Your task to perform on an android device: turn off javascript in the chrome app Image 0: 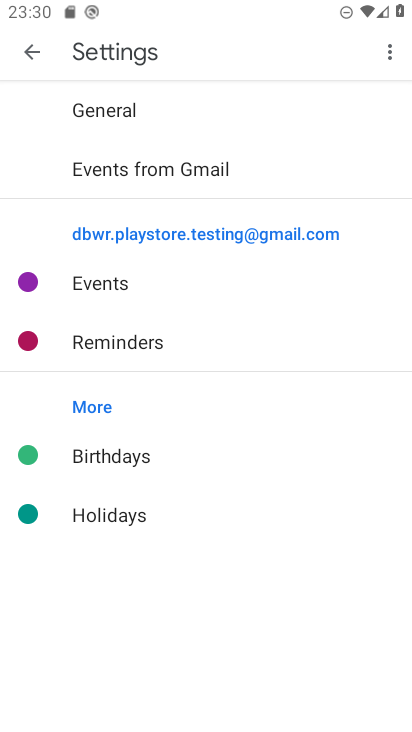
Step 0: press home button
Your task to perform on an android device: turn off javascript in the chrome app Image 1: 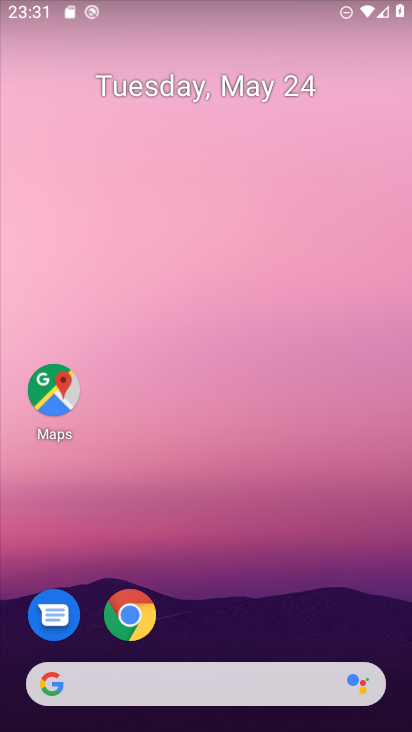
Step 1: drag from (293, 717) to (330, 169)
Your task to perform on an android device: turn off javascript in the chrome app Image 2: 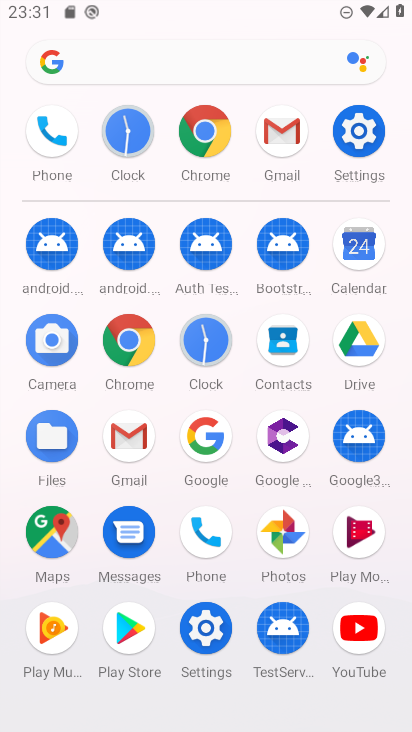
Step 2: click (219, 134)
Your task to perform on an android device: turn off javascript in the chrome app Image 3: 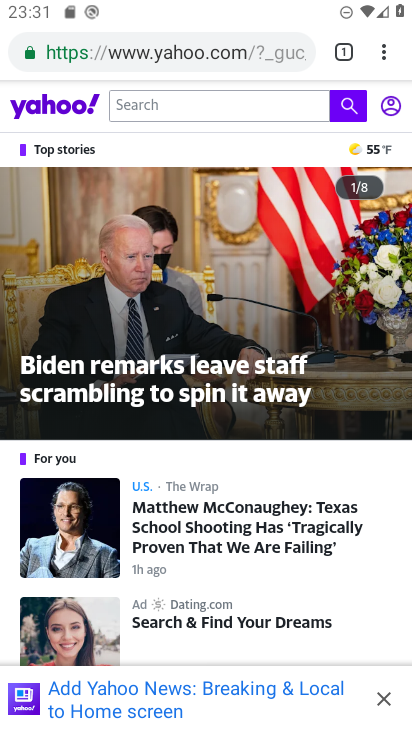
Step 3: click (383, 55)
Your task to perform on an android device: turn off javascript in the chrome app Image 4: 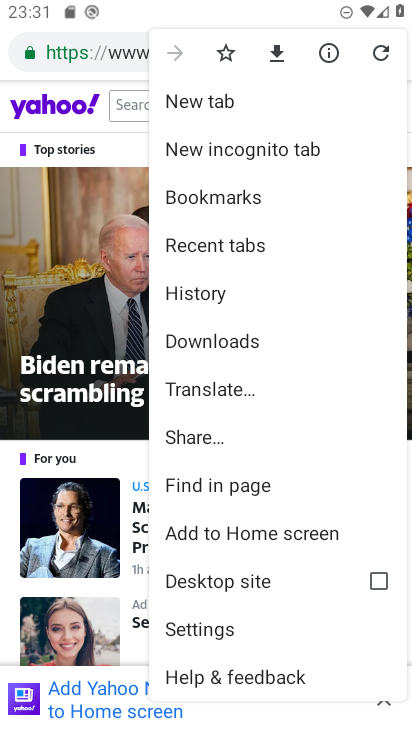
Step 4: click (203, 624)
Your task to perform on an android device: turn off javascript in the chrome app Image 5: 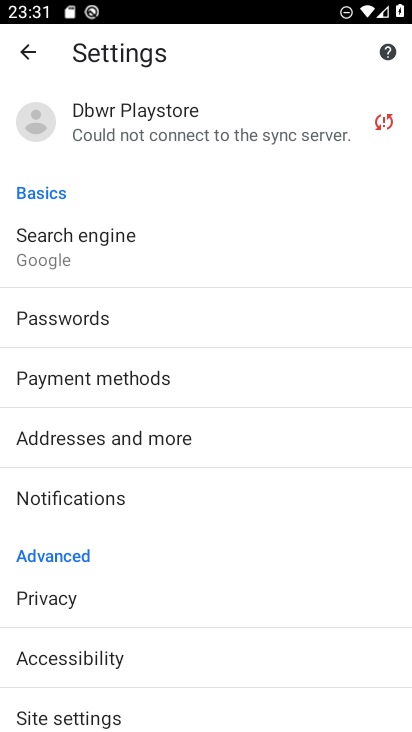
Step 5: drag from (61, 654) to (123, 415)
Your task to perform on an android device: turn off javascript in the chrome app Image 6: 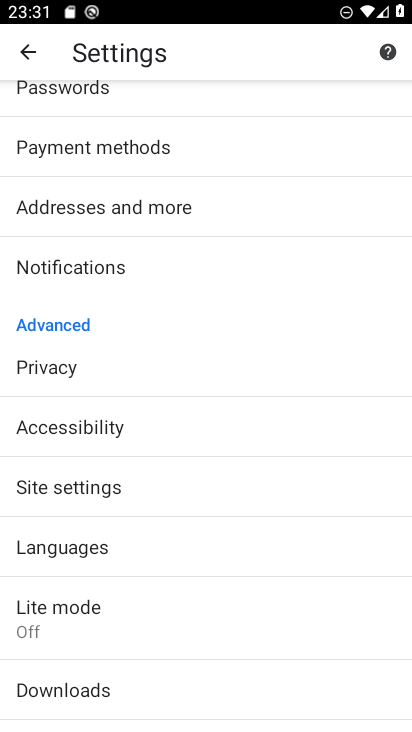
Step 6: click (82, 540)
Your task to perform on an android device: turn off javascript in the chrome app Image 7: 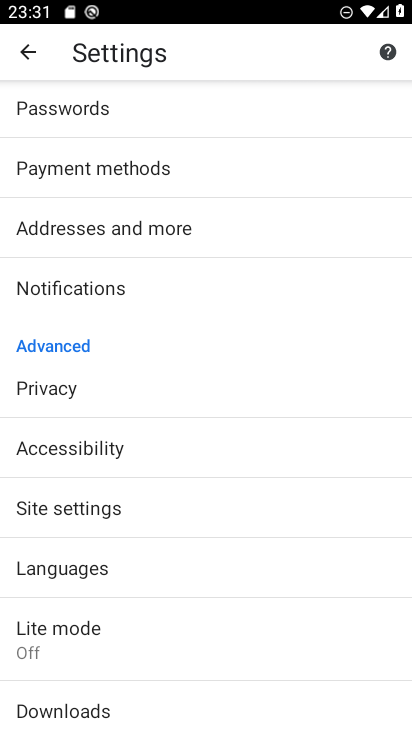
Step 7: click (60, 504)
Your task to perform on an android device: turn off javascript in the chrome app Image 8: 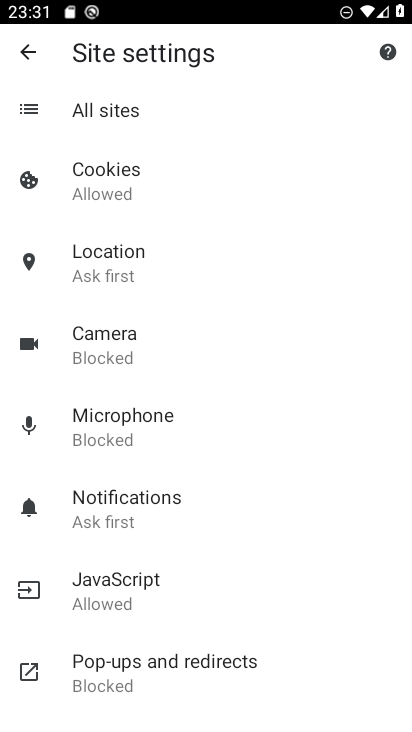
Step 8: click (108, 593)
Your task to perform on an android device: turn off javascript in the chrome app Image 9: 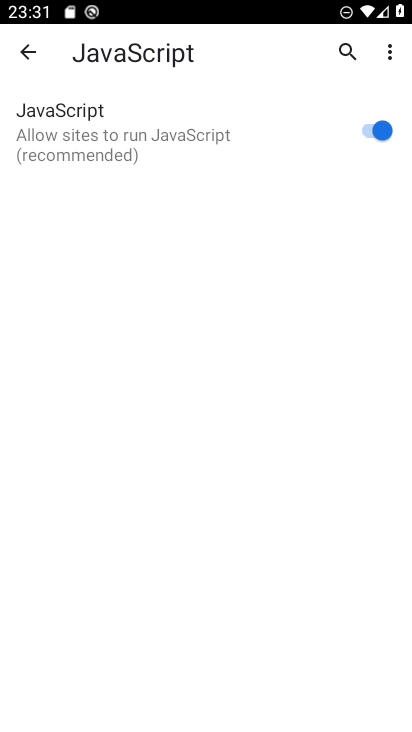
Step 9: click (378, 138)
Your task to perform on an android device: turn off javascript in the chrome app Image 10: 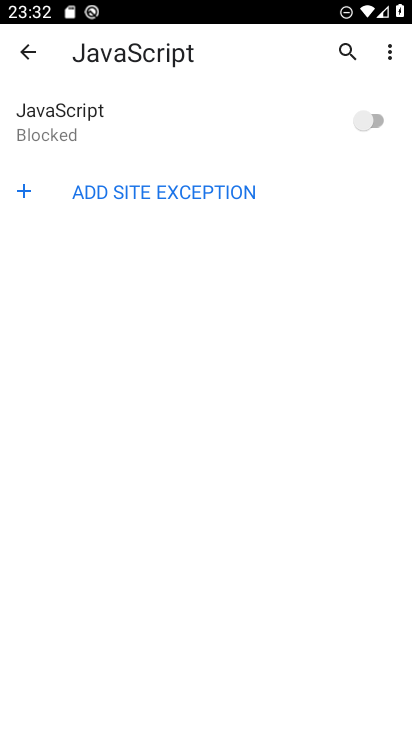
Step 10: task complete